Your task to perform on an android device: check battery use Image 0: 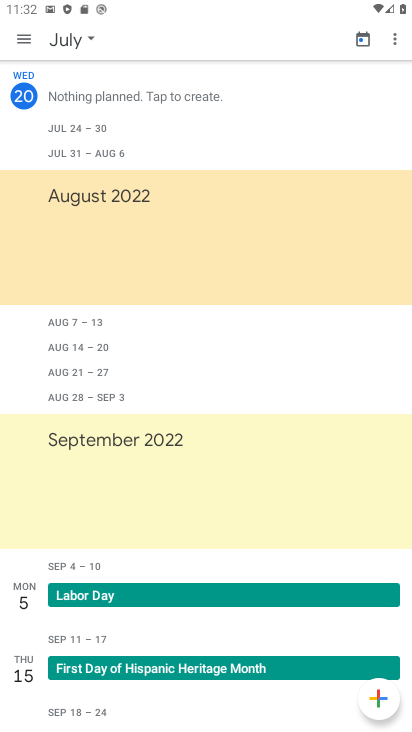
Step 0: press home button
Your task to perform on an android device: check battery use Image 1: 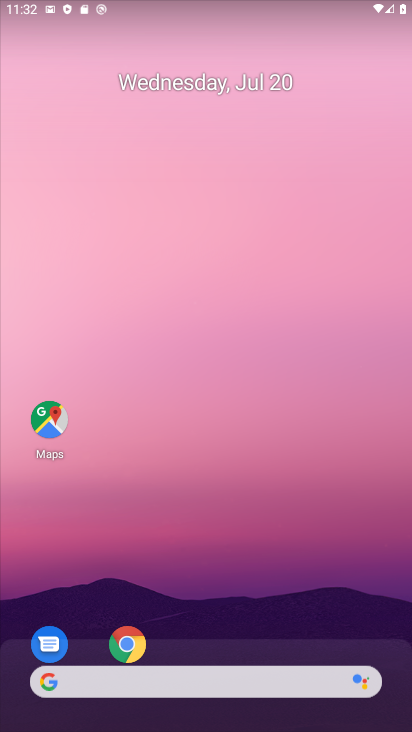
Step 1: drag from (378, 637) to (290, 119)
Your task to perform on an android device: check battery use Image 2: 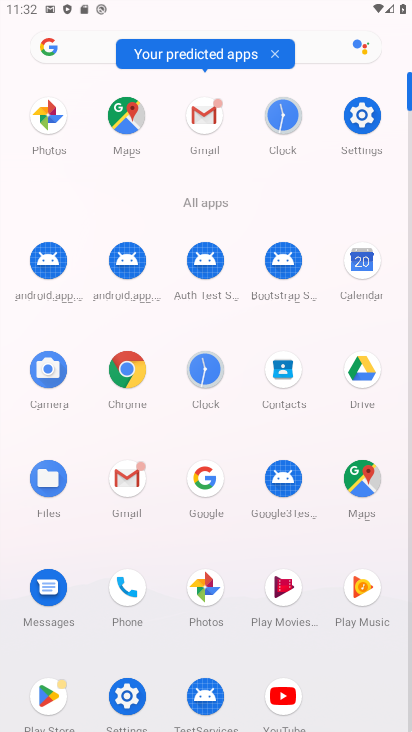
Step 2: click (128, 700)
Your task to perform on an android device: check battery use Image 3: 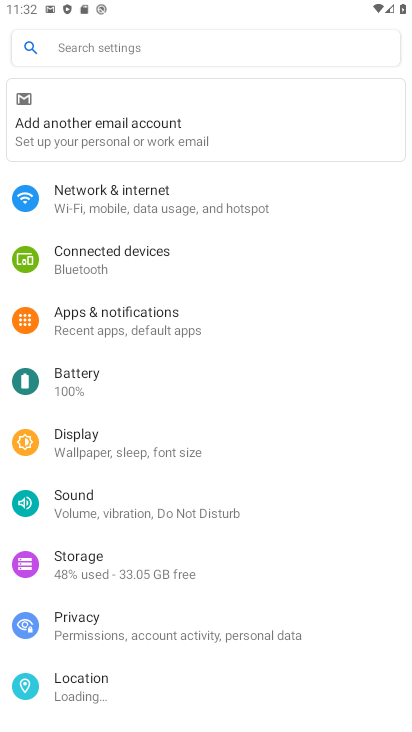
Step 3: click (69, 368)
Your task to perform on an android device: check battery use Image 4: 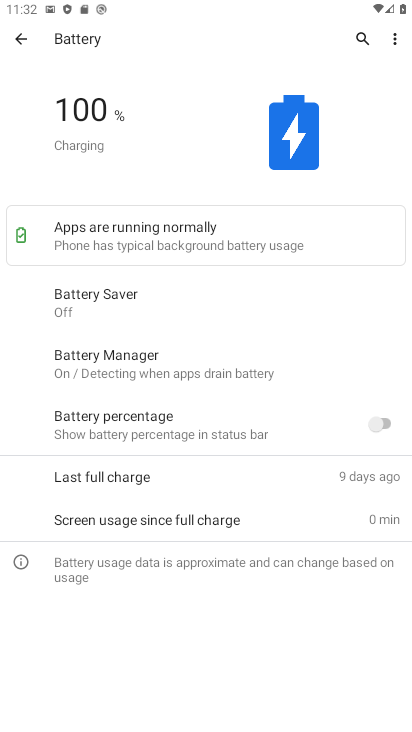
Step 4: click (396, 42)
Your task to perform on an android device: check battery use Image 5: 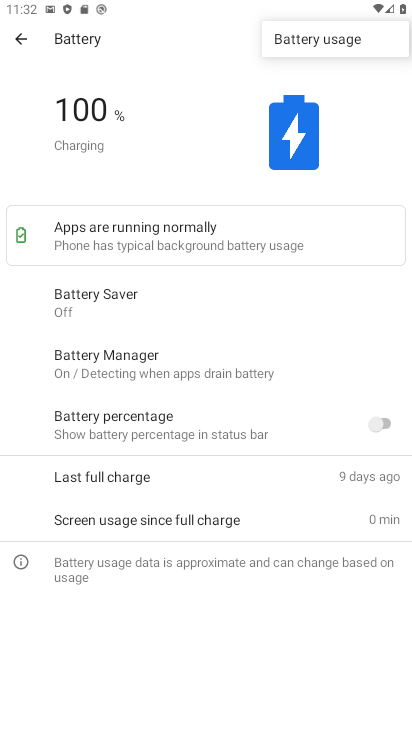
Step 5: click (305, 37)
Your task to perform on an android device: check battery use Image 6: 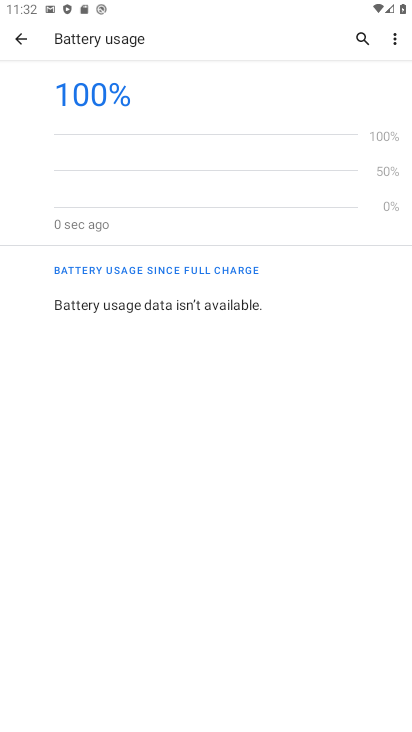
Step 6: task complete